Your task to perform on an android device: delete the emails in spam in the gmail app Image 0: 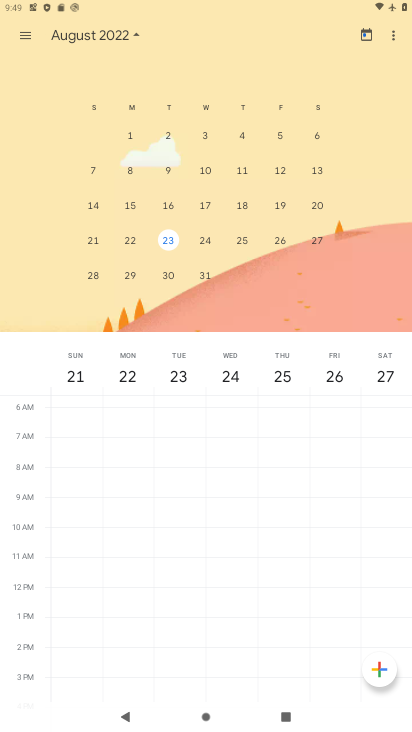
Step 0: press home button
Your task to perform on an android device: delete the emails in spam in the gmail app Image 1: 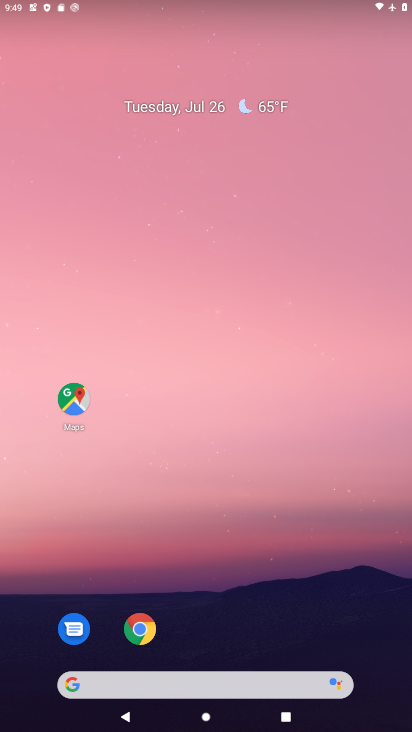
Step 1: drag from (351, 598) to (262, 37)
Your task to perform on an android device: delete the emails in spam in the gmail app Image 2: 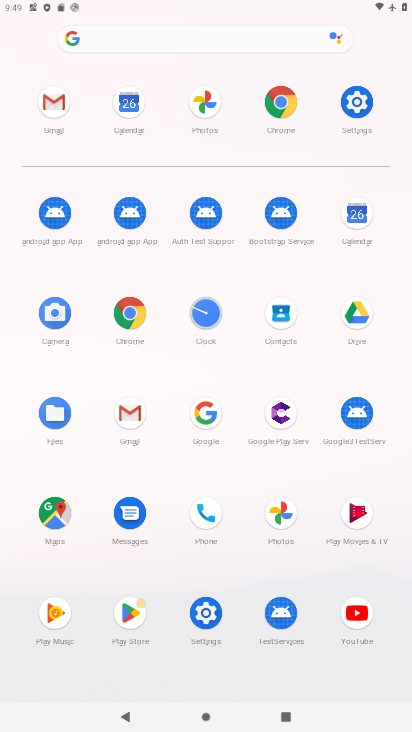
Step 2: click (63, 104)
Your task to perform on an android device: delete the emails in spam in the gmail app Image 3: 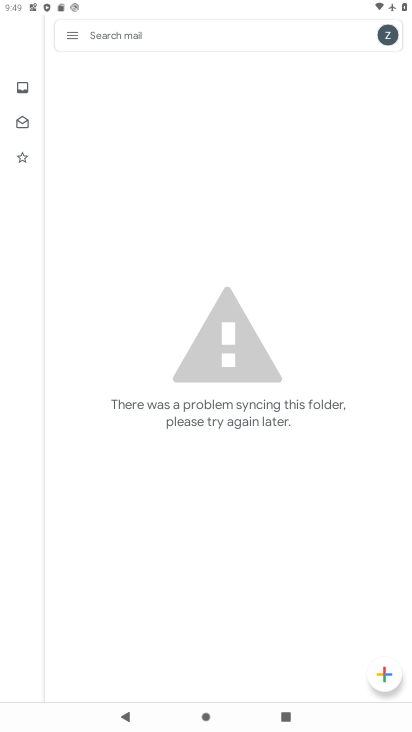
Step 3: click (75, 35)
Your task to perform on an android device: delete the emails in spam in the gmail app Image 4: 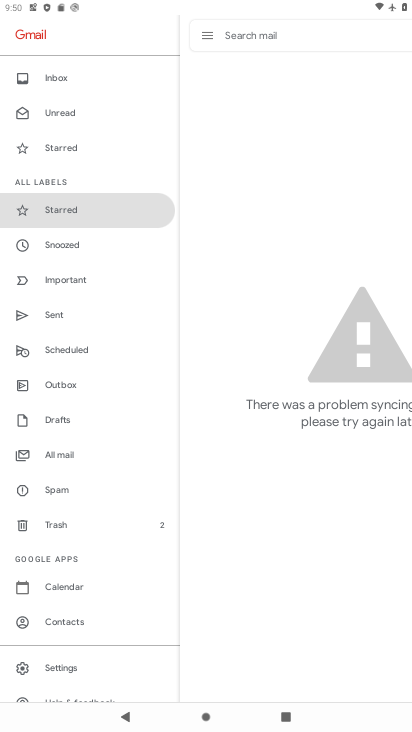
Step 4: click (56, 487)
Your task to perform on an android device: delete the emails in spam in the gmail app Image 5: 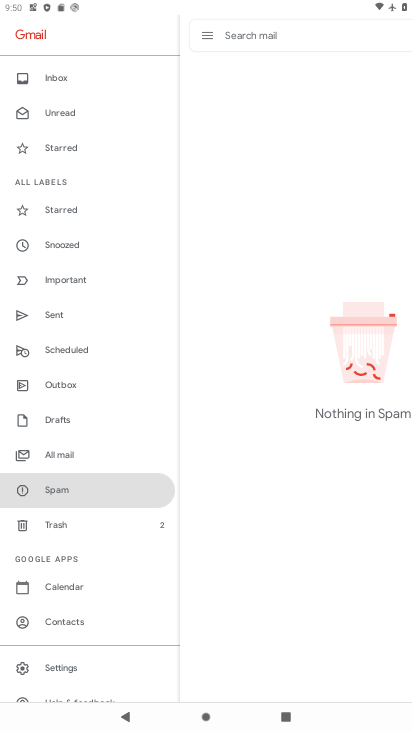
Step 5: task complete